Your task to perform on an android device: toggle notification dots Image 0: 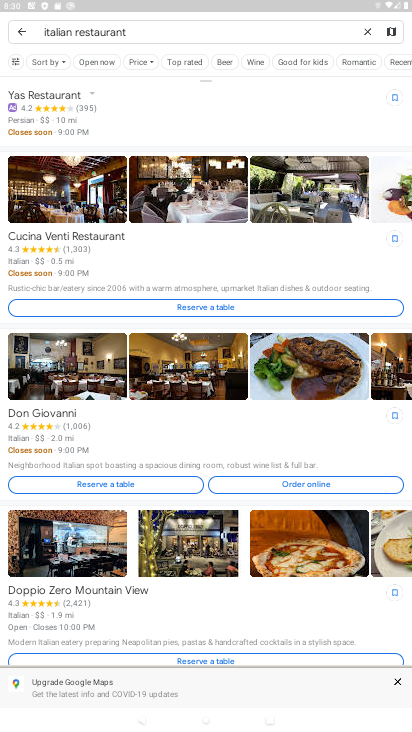
Step 0: press home button
Your task to perform on an android device: toggle notification dots Image 1: 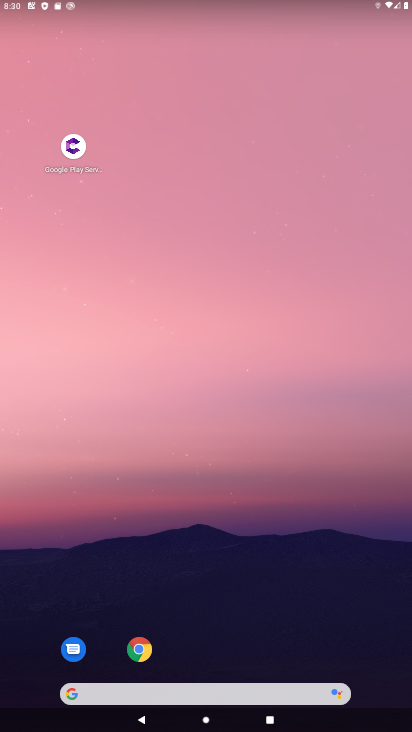
Step 1: drag from (174, 681) to (238, 160)
Your task to perform on an android device: toggle notification dots Image 2: 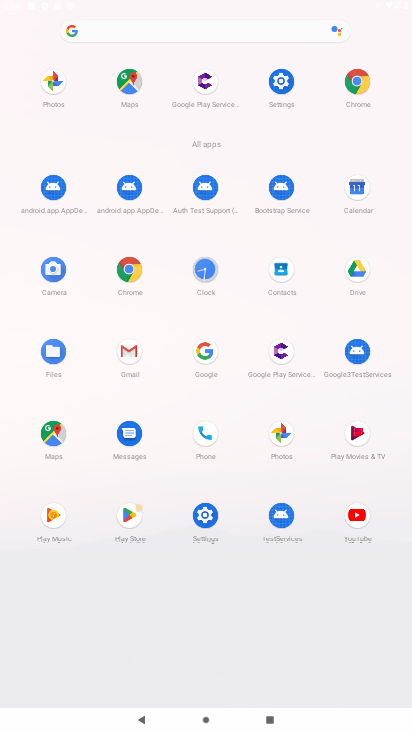
Step 2: click (197, 515)
Your task to perform on an android device: toggle notification dots Image 3: 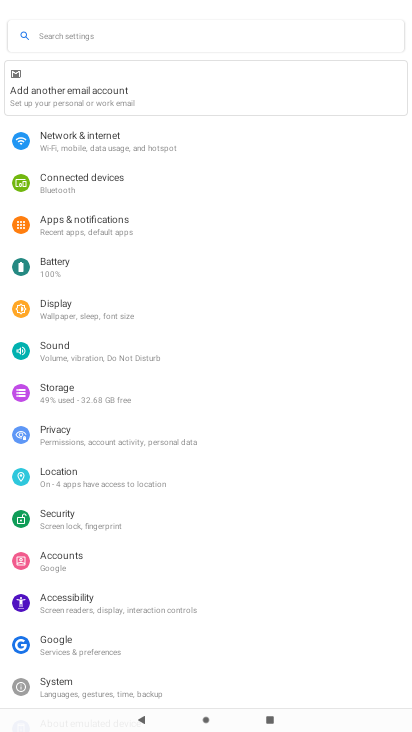
Step 3: click (118, 236)
Your task to perform on an android device: toggle notification dots Image 4: 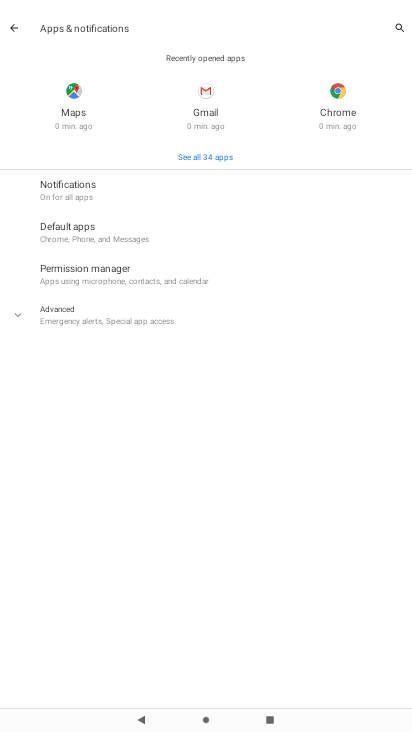
Step 4: click (114, 200)
Your task to perform on an android device: toggle notification dots Image 5: 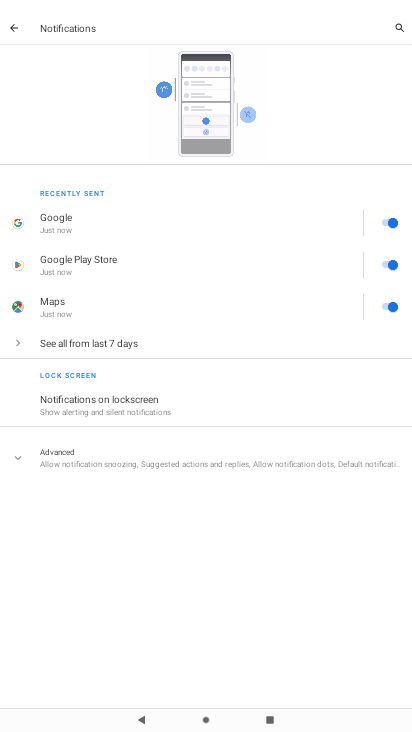
Step 5: click (155, 457)
Your task to perform on an android device: toggle notification dots Image 6: 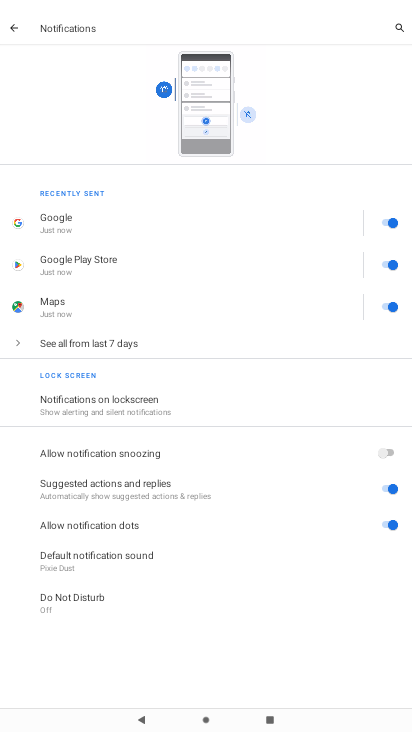
Step 6: click (385, 529)
Your task to perform on an android device: toggle notification dots Image 7: 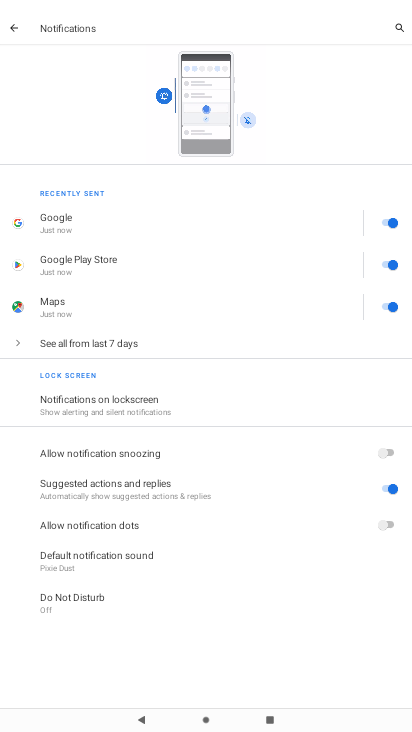
Step 7: task complete